Your task to perform on an android device: What is the recent news? Image 0: 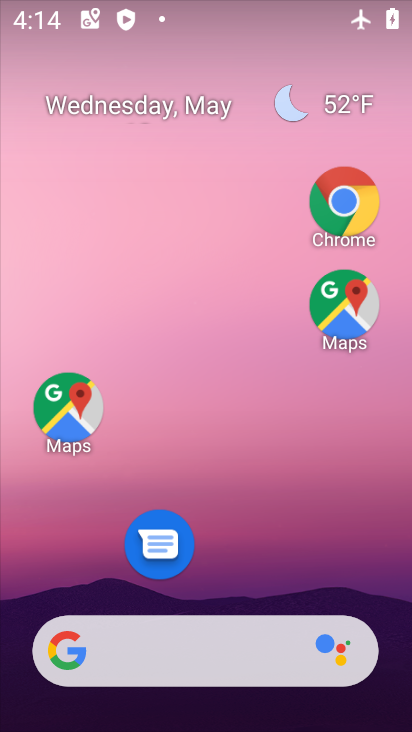
Step 0: click (153, 642)
Your task to perform on an android device: What is the recent news? Image 1: 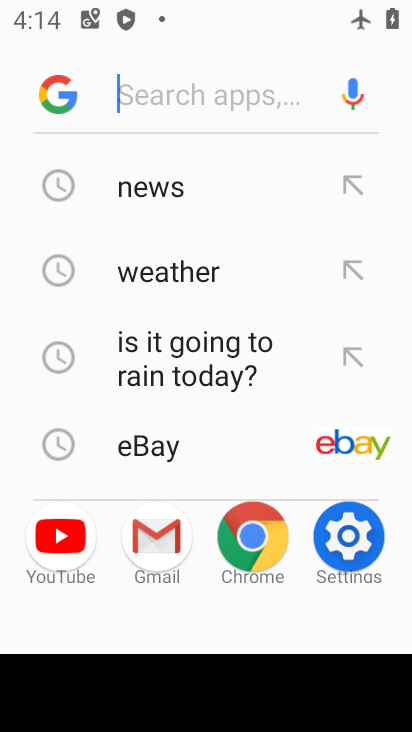
Step 1: type "recent news"
Your task to perform on an android device: What is the recent news? Image 2: 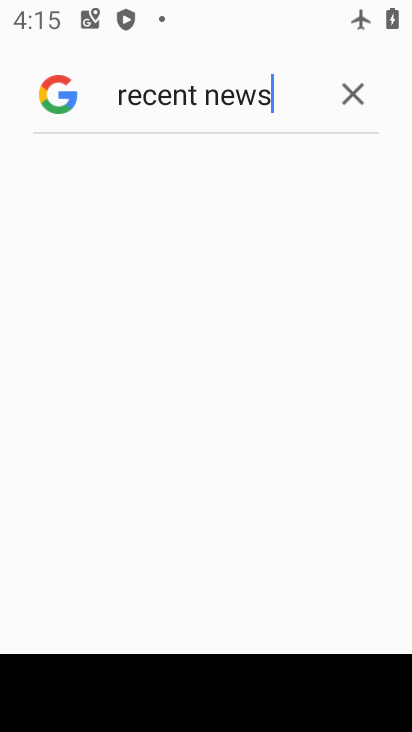
Step 2: press back button
Your task to perform on an android device: What is the recent news? Image 3: 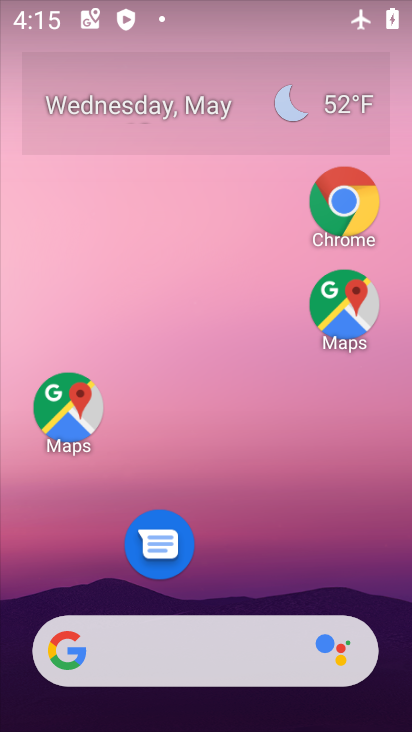
Step 3: drag from (231, 529) to (334, 2)
Your task to perform on an android device: What is the recent news? Image 4: 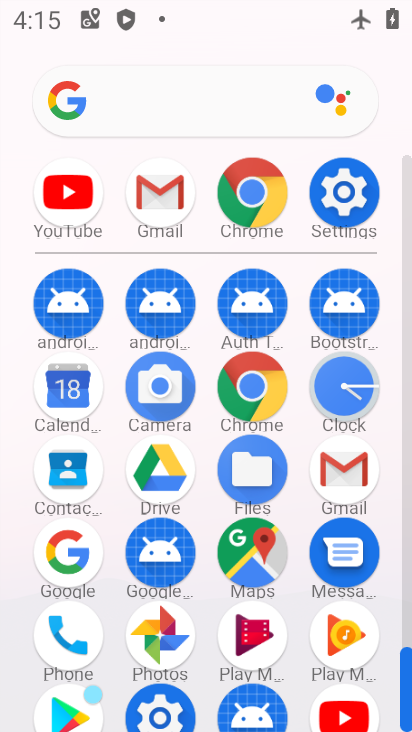
Step 4: click (349, 191)
Your task to perform on an android device: What is the recent news? Image 5: 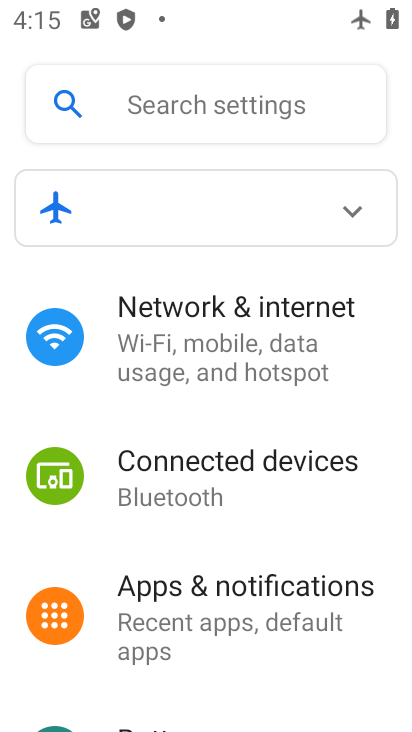
Step 5: click (356, 213)
Your task to perform on an android device: What is the recent news? Image 6: 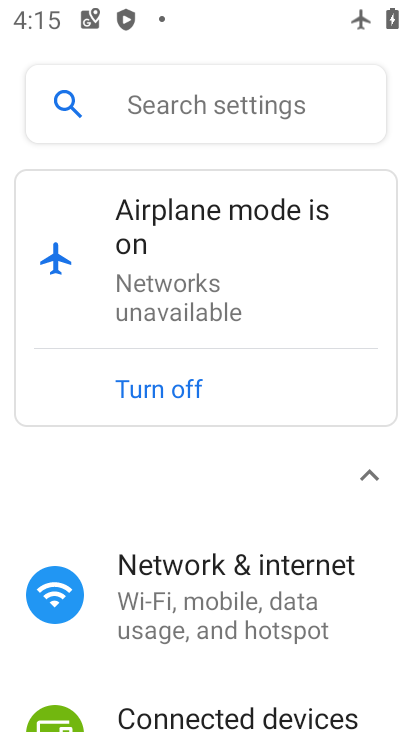
Step 6: click (174, 393)
Your task to perform on an android device: What is the recent news? Image 7: 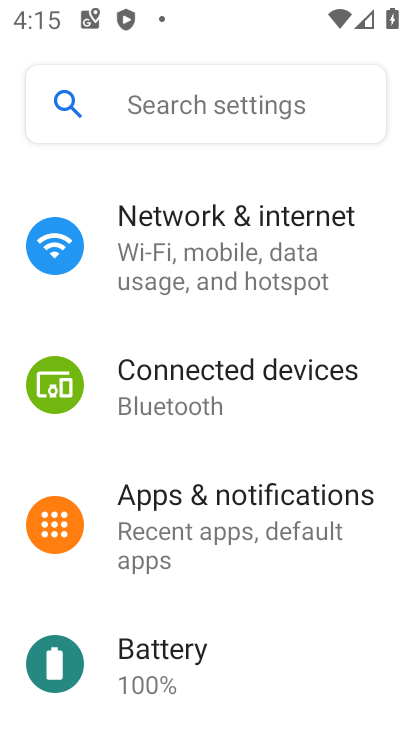
Step 7: press home button
Your task to perform on an android device: What is the recent news? Image 8: 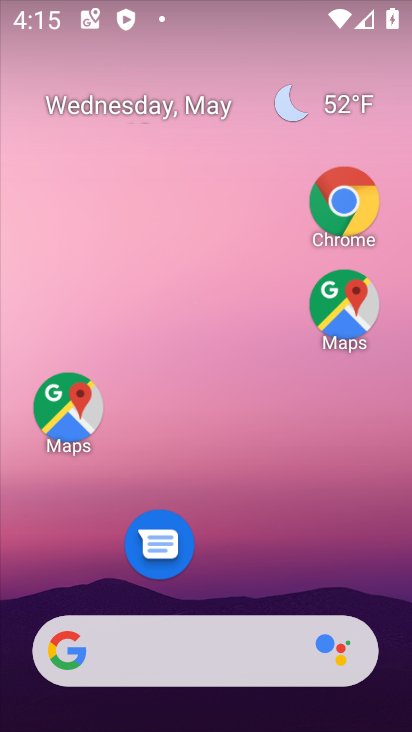
Step 8: drag from (251, 578) to (299, 53)
Your task to perform on an android device: What is the recent news? Image 9: 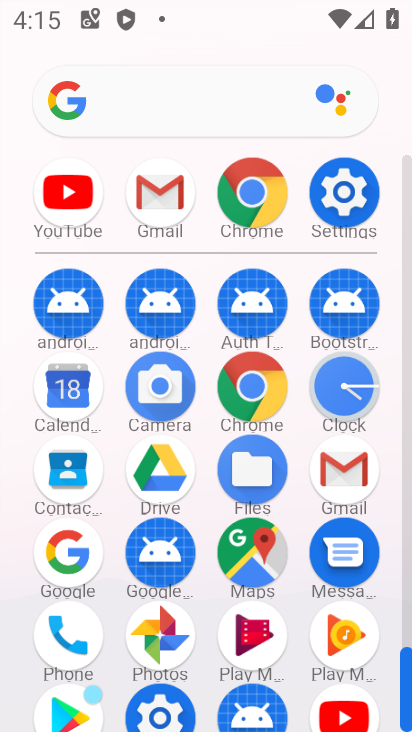
Step 9: click (52, 555)
Your task to perform on an android device: What is the recent news? Image 10: 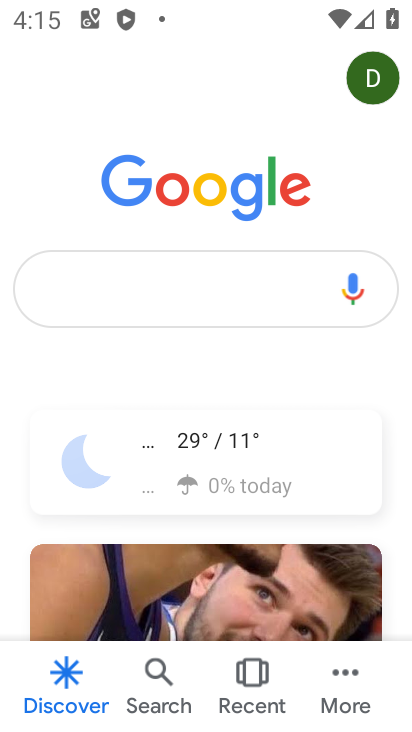
Step 10: click (226, 312)
Your task to perform on an android device: What is the recent news? Image 11: 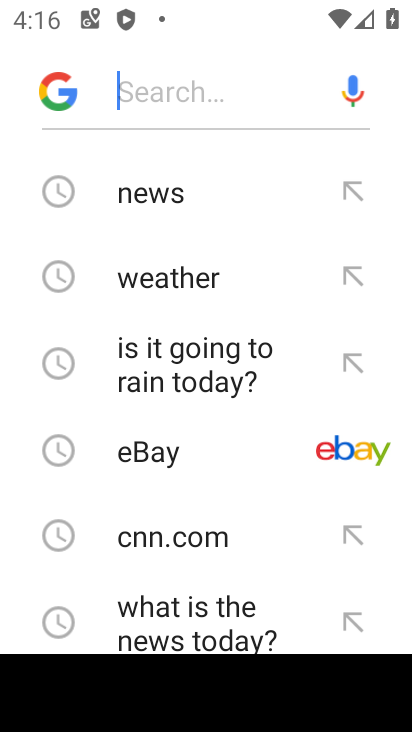
Step 11: type "recent news"
Your task to perform on an android device: What is the recent news? Image 12: 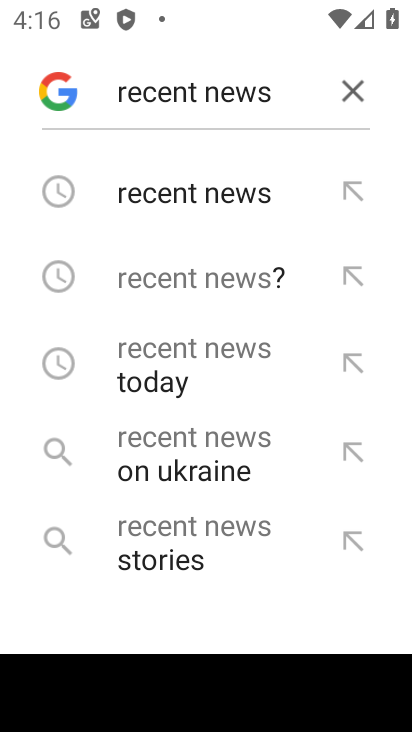
Step 12: click (136, 193)
Your task to perform on an android device: What is the recent news? Image 13: 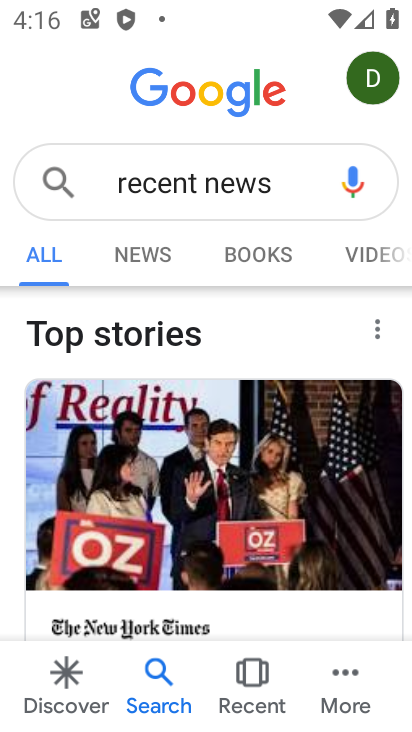
Step 13: task complete